Your task to perform on an android device: Go to network settings Image 0: 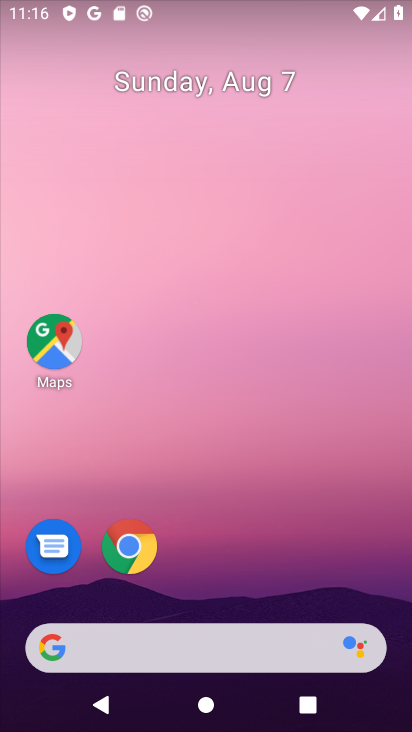
Step 0: click (188, 258)
Your task to perform on an android device: Go to network settings Image 1: 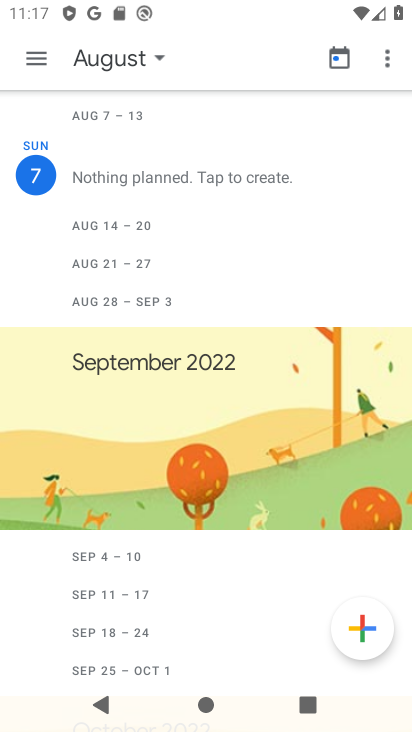
Step 1: press back button
Your task to perform on an android device: Go to network settings Image 2: 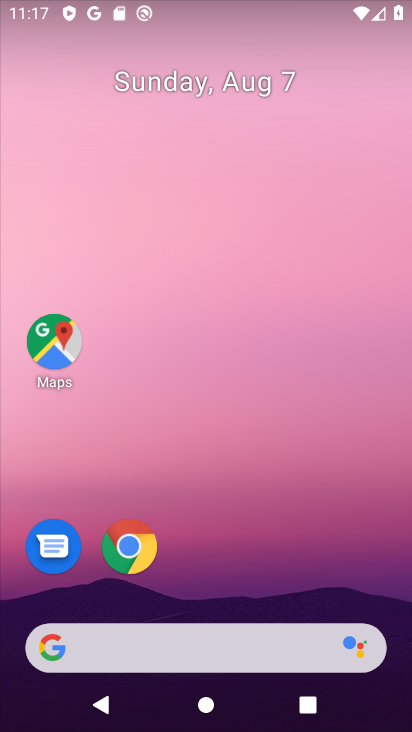
Step 2: drag from (214, 591) to (172, 196)
Your task to perform on an android device: Go to network settings Image 3: 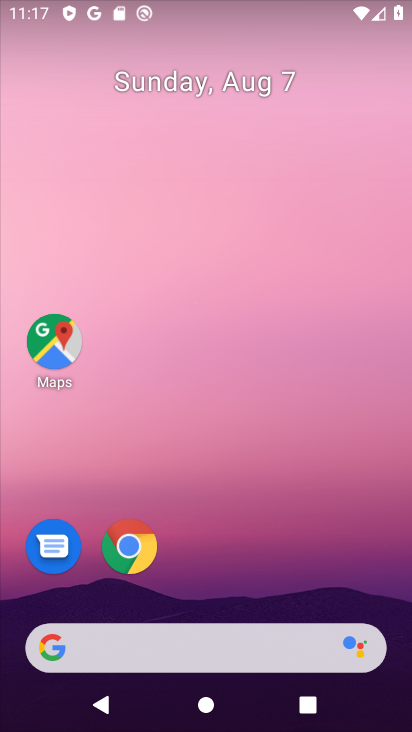
Step 3: drag from (243, 560) to (245, 167)
Your task to perform on an android device: Go to network settings Image 4: 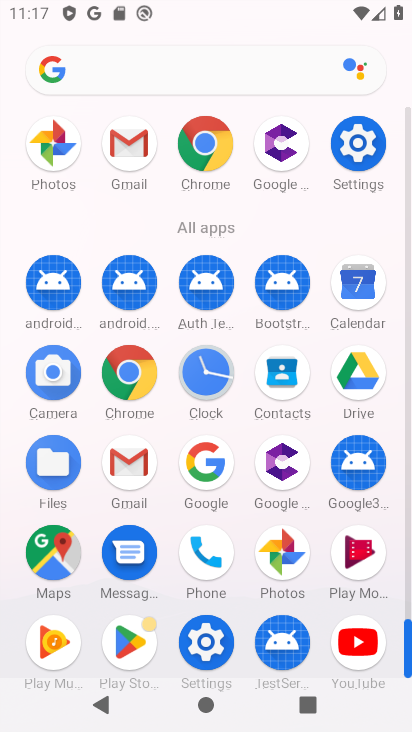
Step 4: drag from (245, 510) to (191, 179)
Your task to perform on an android device: Go to network settings Image 5: 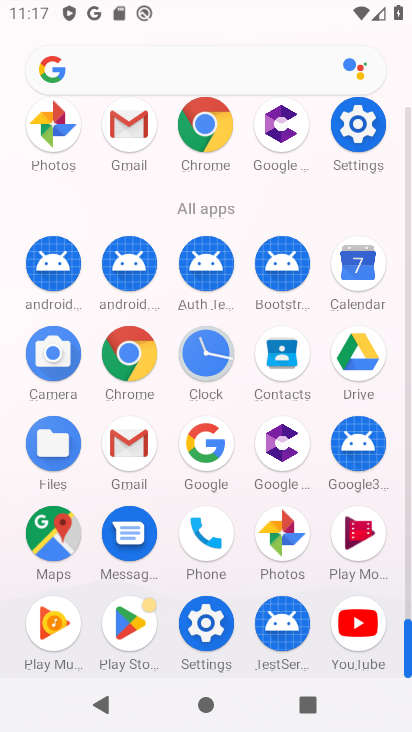
Step 5: click (208, 620)
Your task to perform on an android device: Go to network settings Image 6: 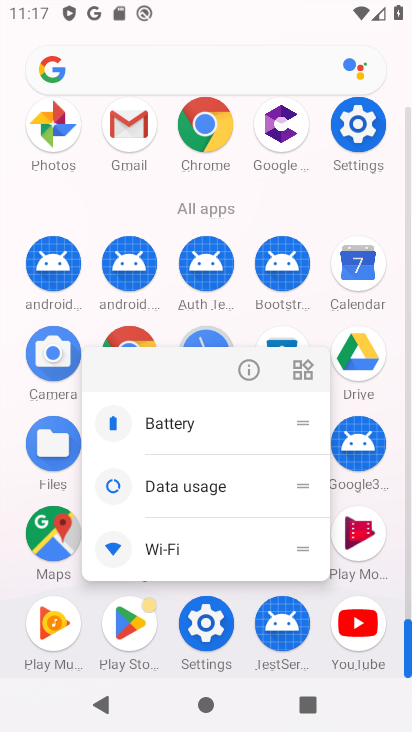
Step 6: click (211, 624)
Your task to perform on an android device: Go to network settings Image 7: 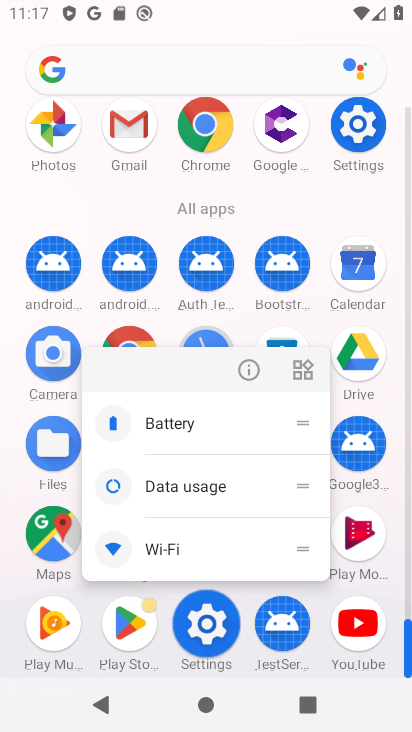
Step 7: click (211, 624)
Your task to perform on an android device: Go to network settings Image 8: 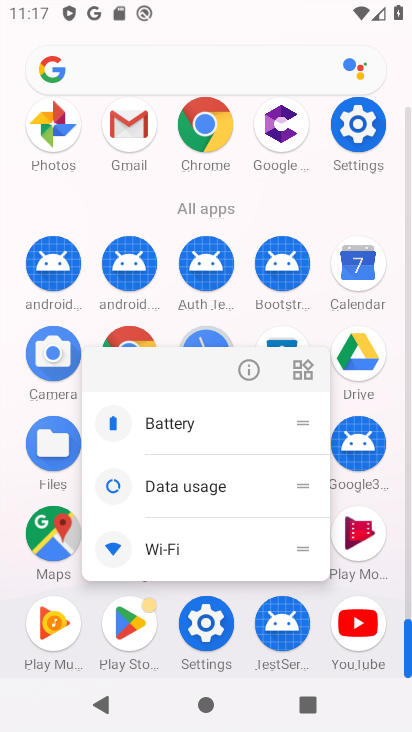
Step 8: click (206, 602)
Your task to perform on an android device: Go to network settings Image 9: 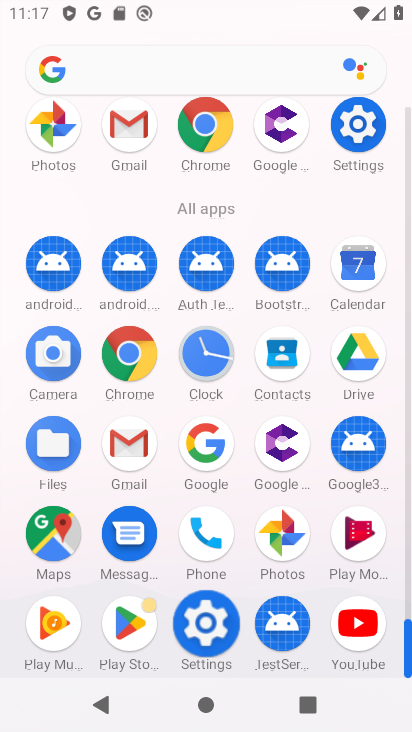
Step 9: click (208, 617)
Your task to perform on an android device: Go to network settings Image 10: 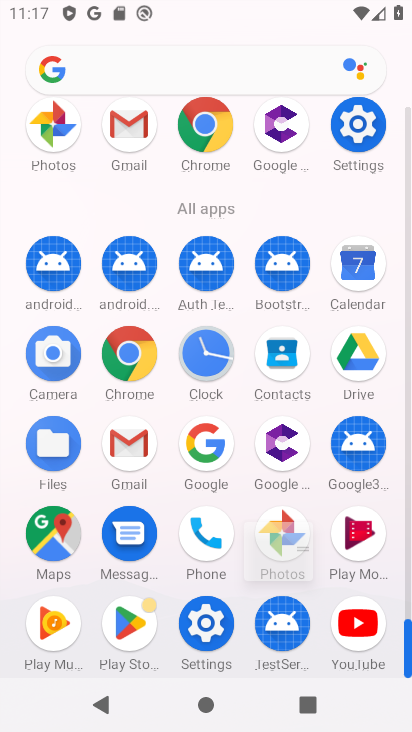
Step 10: click (208, 617)
Your task to perform on an android device: Go to network settings Image 11: 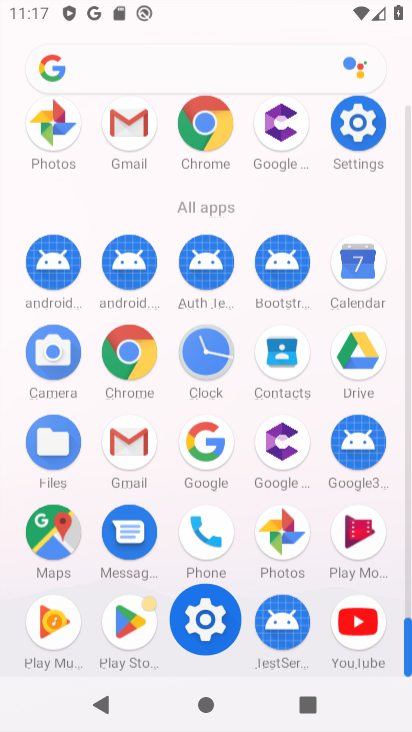
Step 11: click (219, 620)
Your task to perform on an android device: Go to network settings Image 12: 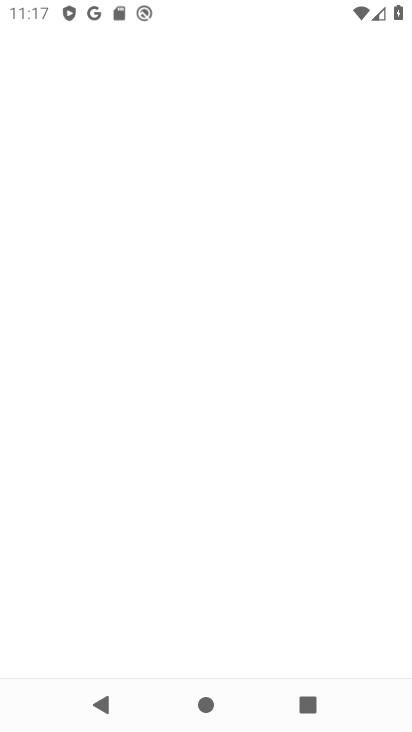
Step 12: click (220, 622)
Your task to perform on an android device: Go to network settings Image 13: 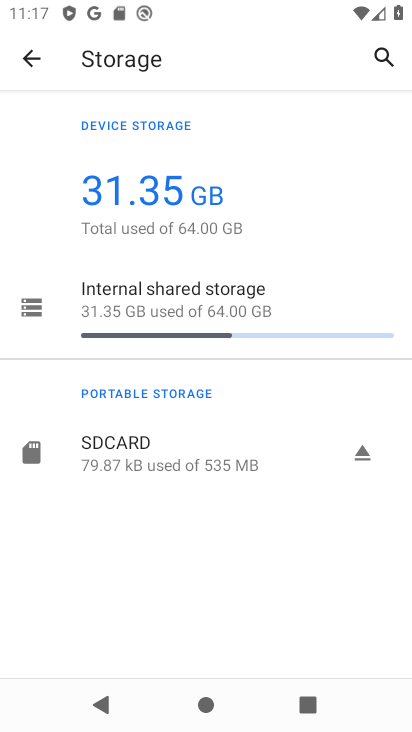
Step 13: click (25, 62)
Your task to perform on an android device: Go to network settings Image 14: 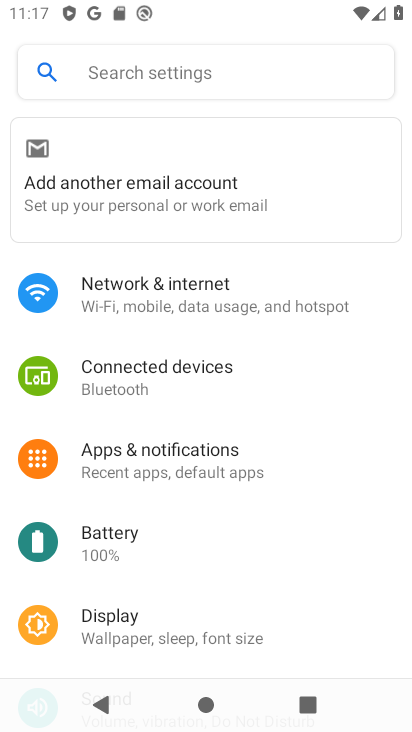
Step 14: click (211, 302)
Your task to perform on an android device: Go to network settings Image 15: 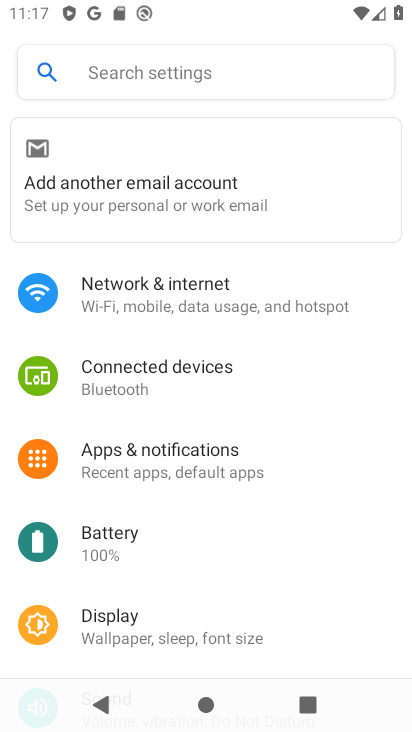
Step 15: click (221, 314)
Your task to perform on an android device: Go to network settings Image 16: 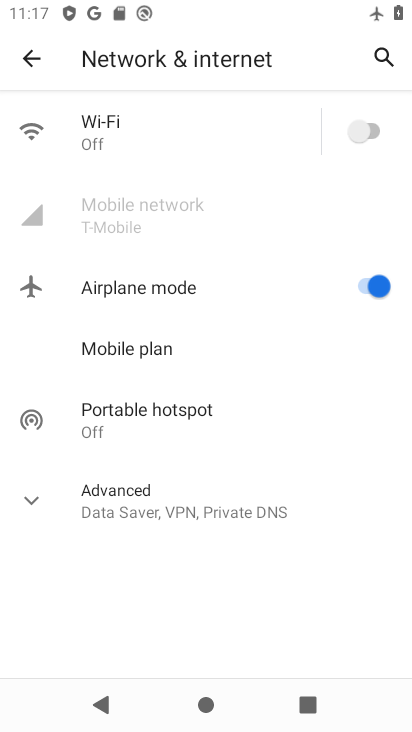
Step 16: click (374, 282)
Your task to perform on an android device: Go to network settings Image 17: 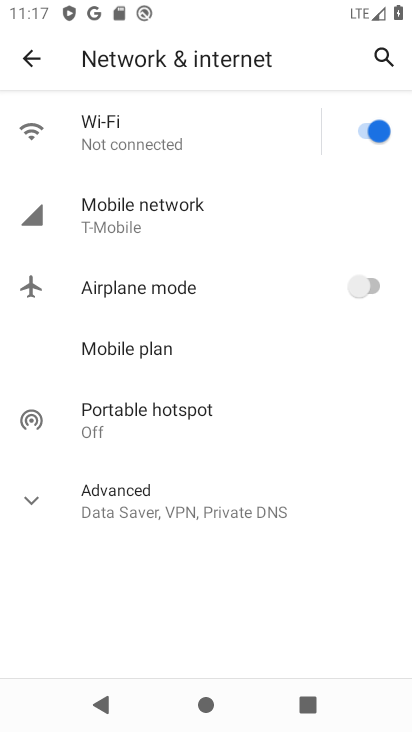
Step 17: click (28, 52)
Your task to perform on an android device: Go to network settings Image 18: 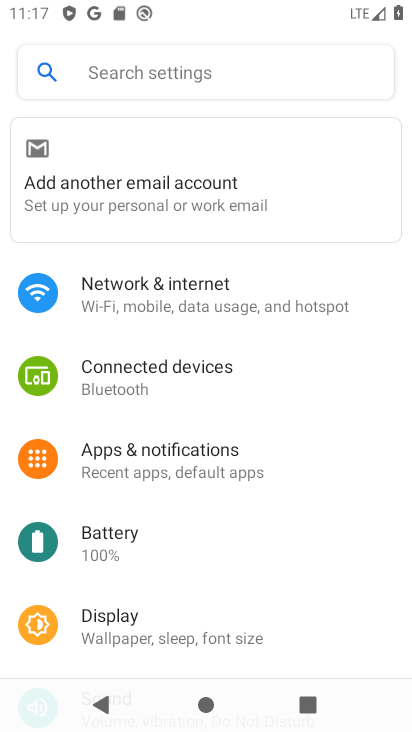
Step 18: task complete